Your task to perform on an android device: see tabs open on other devices in the chrome app Image 0: 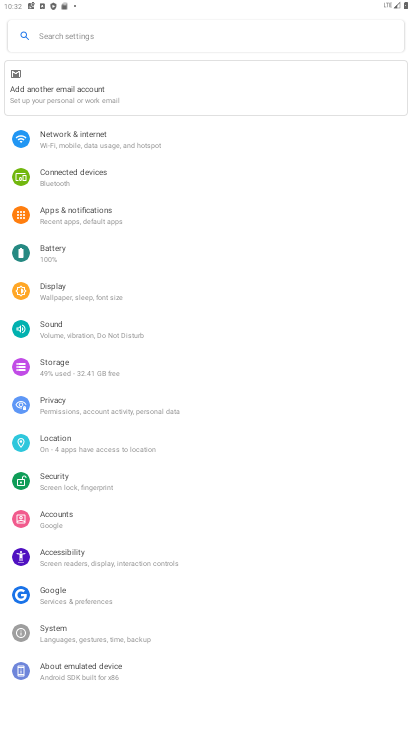
Step 0: press home button
Your task to perform on an android device: see tabs open on other devices in the chrome app Image 1: 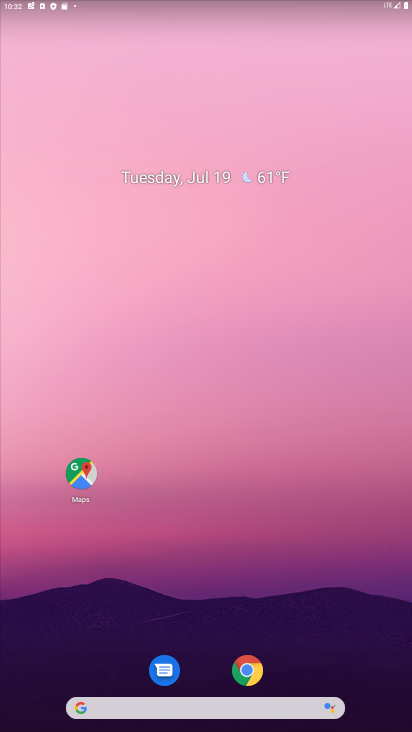
Step 1: click (250, 675)
Your task to perform on an android device: see tabs open on other devices in the chrome app Image 2: 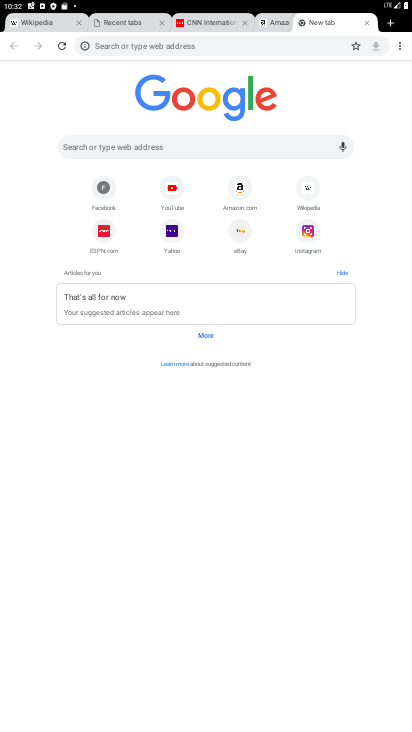
Step 2: click (250, 675)
Your task to perform on an android device: see tabs open on other devices in the chrome app Image 3: 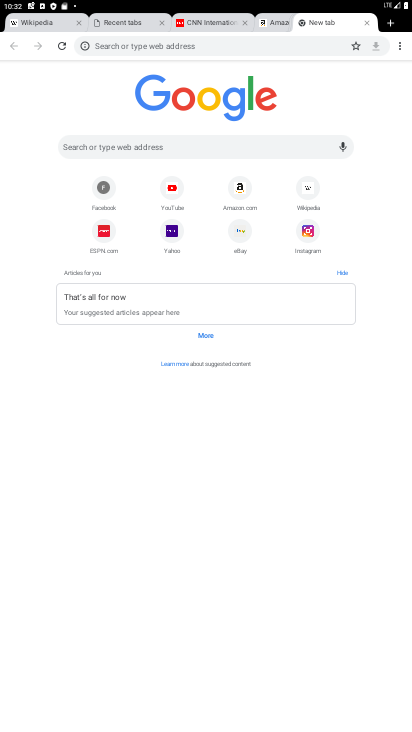
Step 3: click (250, 675)
Your task to perform on an android device: see tabs open on other devices in the chrome app Image 4: 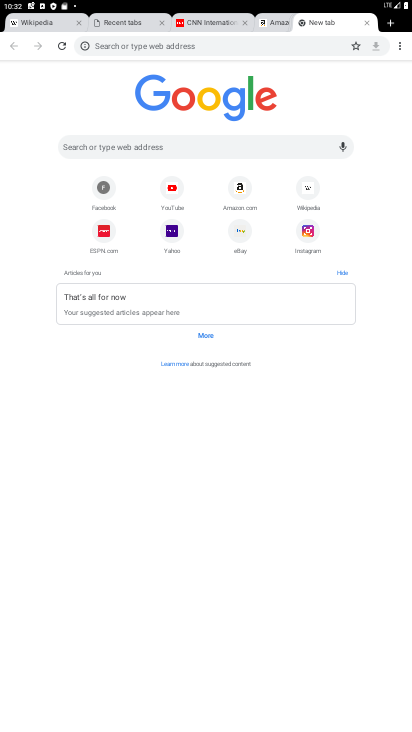
Step 4: click (403, 45)
Your task to perform on an android device: see tabs open on other devices in the chrome app Image 5: 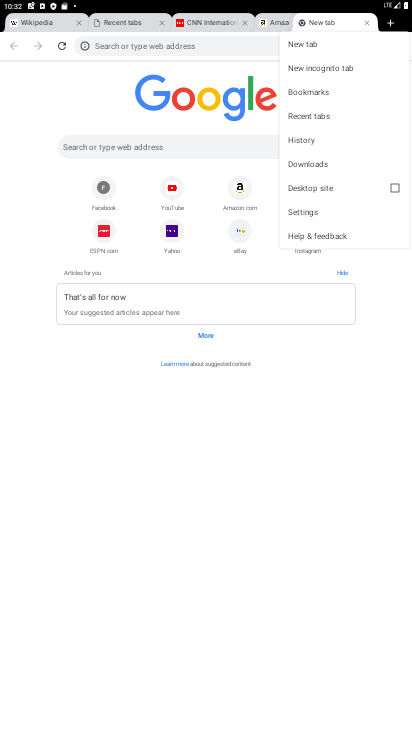
Step 5: click (322, 119)
Your task to perform on an android device: see tabs open on other devices in the chrome app Image 6: 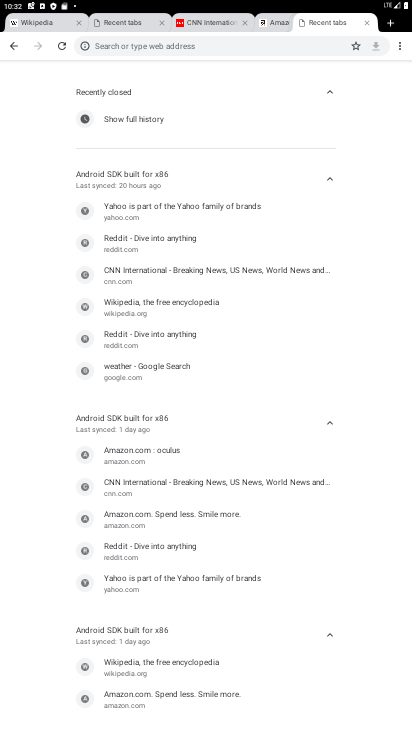
Step 6: task complete